Your task to perform on an android device: Is it going to rain tomorrow? Image 0: 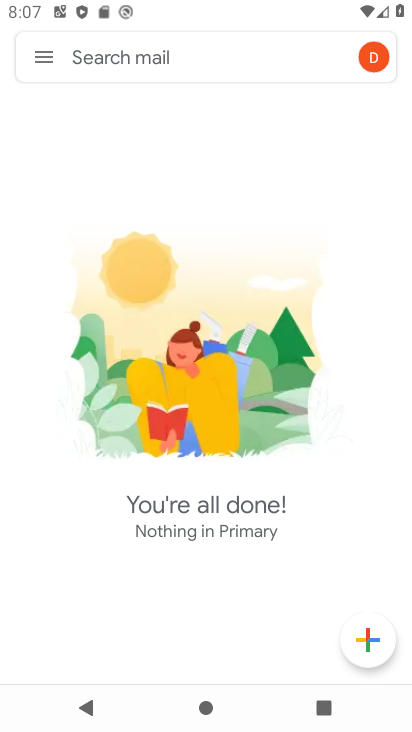
Step 0: press home button
Your task to perform on an android device: Is it going to rain tomorrow? Image 1: 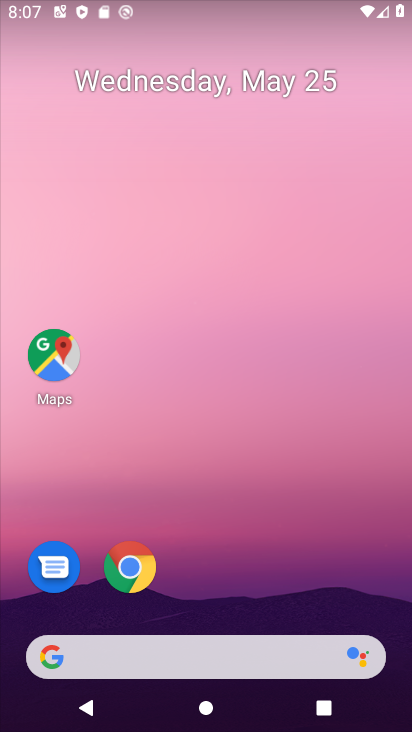
Step 1: click (197, 648)
Your task to perform on an android device: Is it going to rain tomorrow? Image 2: 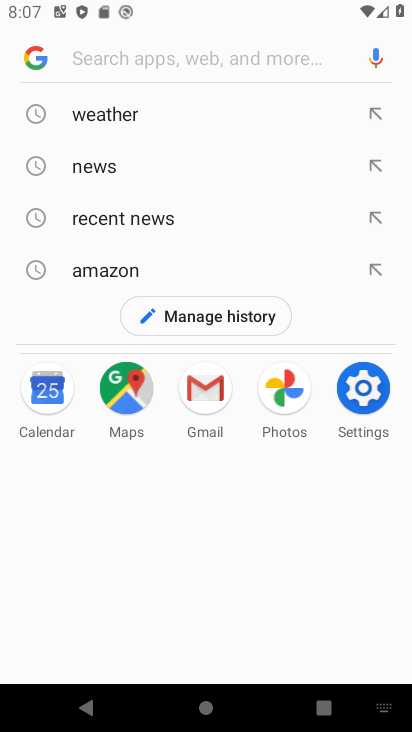
Step 2: click (138, 104)
Your task to perform on an android device: Is it going to rain tomorrow? Image 3: 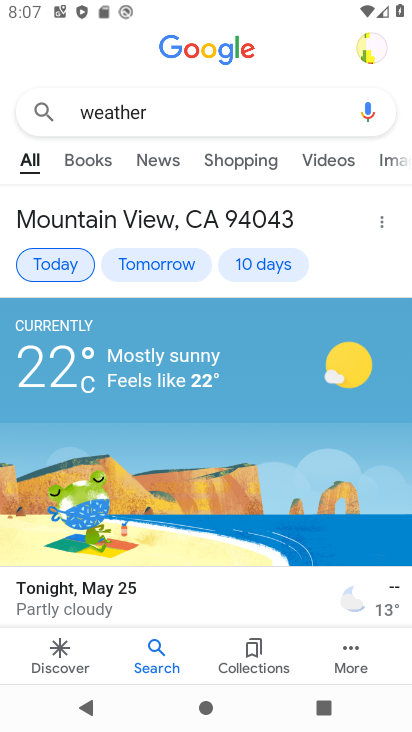
Step 3: click (158, 265)
Your task to perform on an android device: Is it going to rain tomorrow? Image 4: 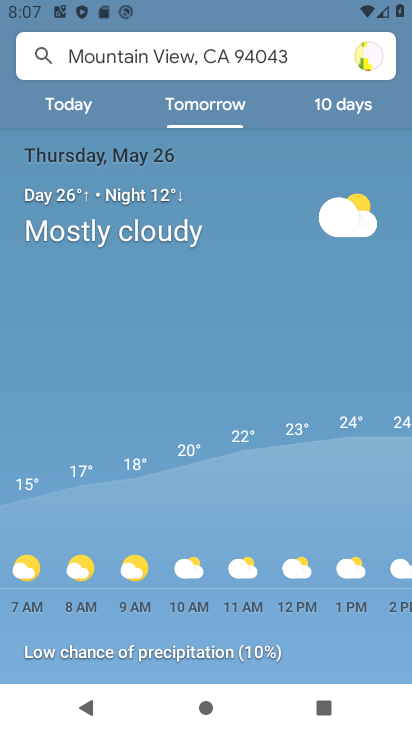
Step 4: task complete